Your task to perform on an android device: set an alarm Image 0: 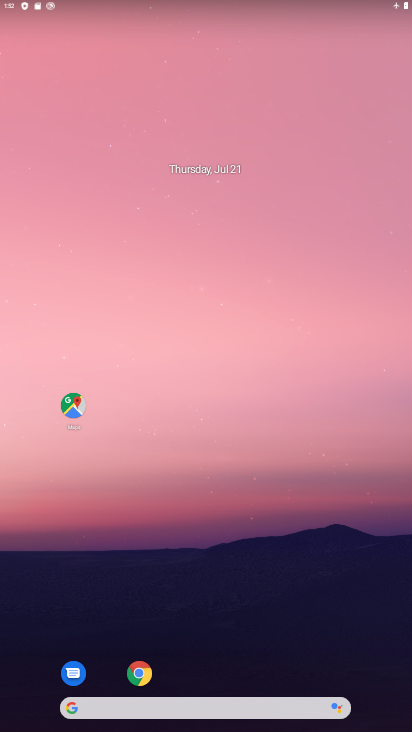
Step 0: drag from (212, 658) to (207, 3)
Your task to perform on an android device: set an alarm Image 1: 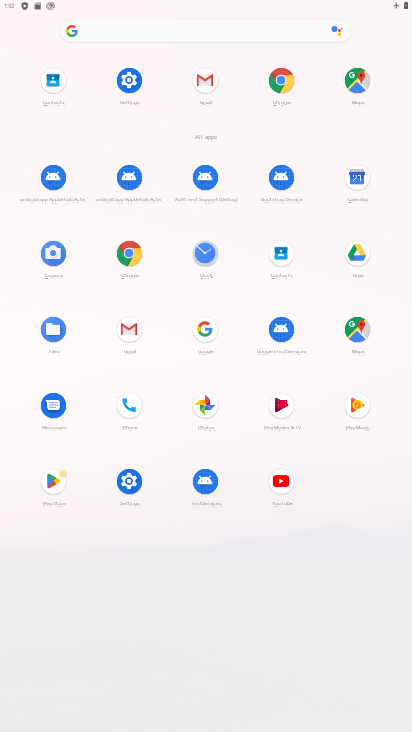
Step 1: click (204, 263)
Your task to perform on an android device: set an alarm Image 2: 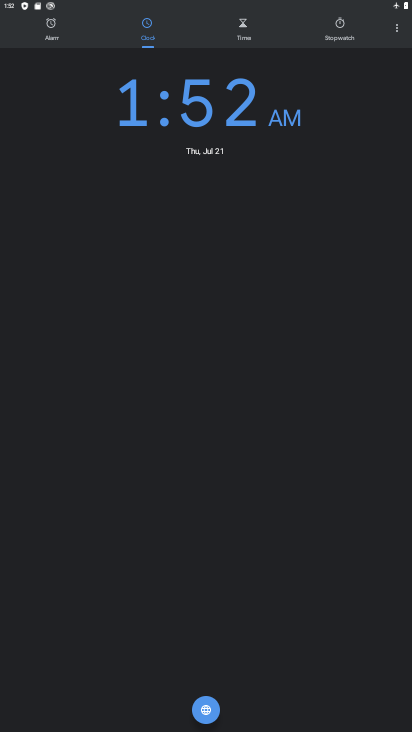
Step 2: click (52, 31)
Your task to perform on an android device: set an alarm Image 3: 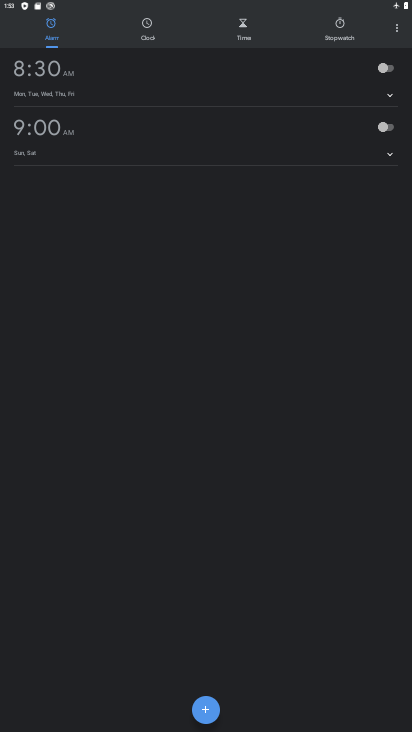
Step 3: click (386, 68)
Your task to perform on an android device: set an alarm Image 4: 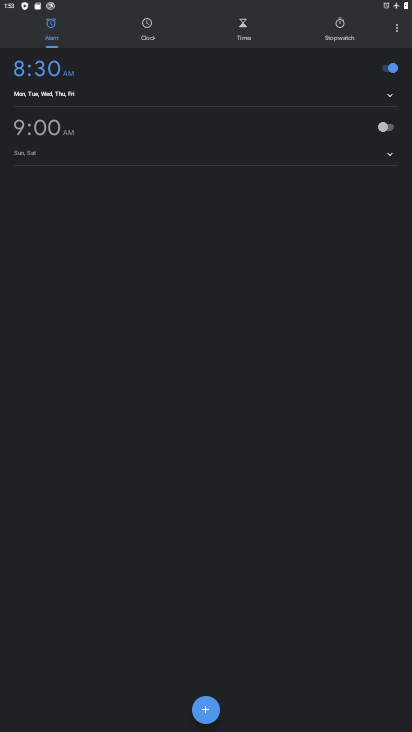
Step 4: task complete